Your task to perform on an android device: move an email to a new category in the gmail app Image 0: 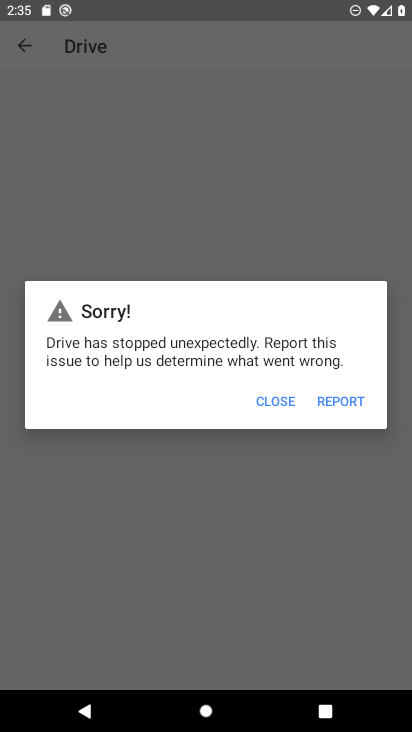
Step 0: press home button
Your task to perform on an android device: move an email to a new category in the gmail app Image 1: 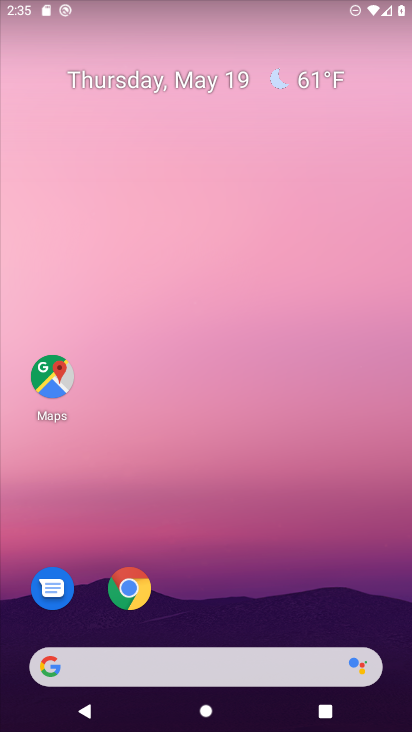
Step 1: drag from (297, 638) to (322, 30)
Your task to perform on an android device: move an email to a new category in the gmail app Image 2: 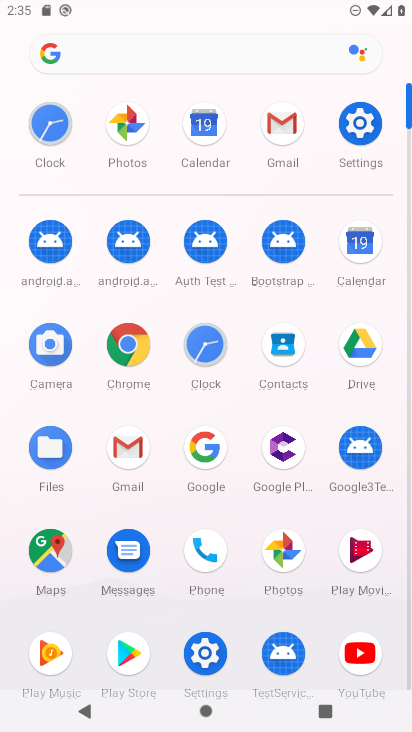
Step 2: click (288, 128)
Your task to perform on an android device: move an email to a new category in the gmail app Image 3: 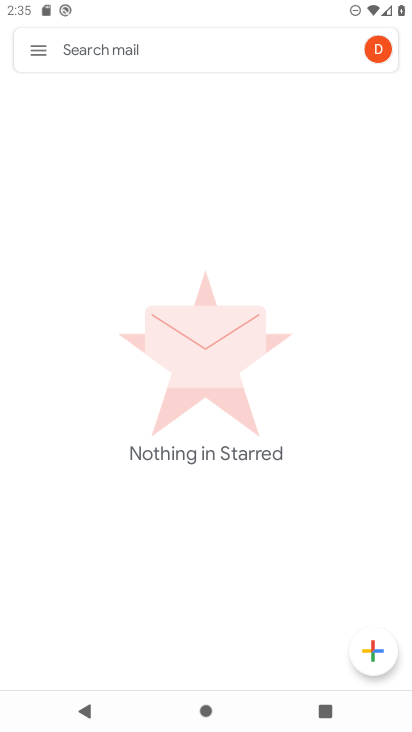
Step 3: click (33, 50)
Your task to perform on an android device: move an email to a new category in the gmail app Image 4: 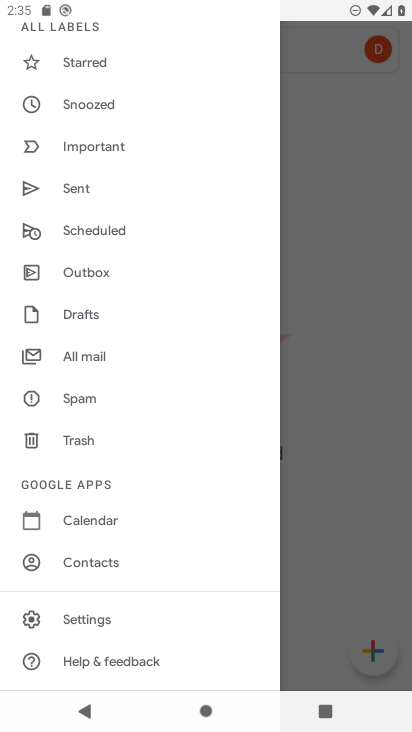
Step 4: click (82, 355)
Your task to perform on an android device: move an email to a new category in the gmail app Image 5: 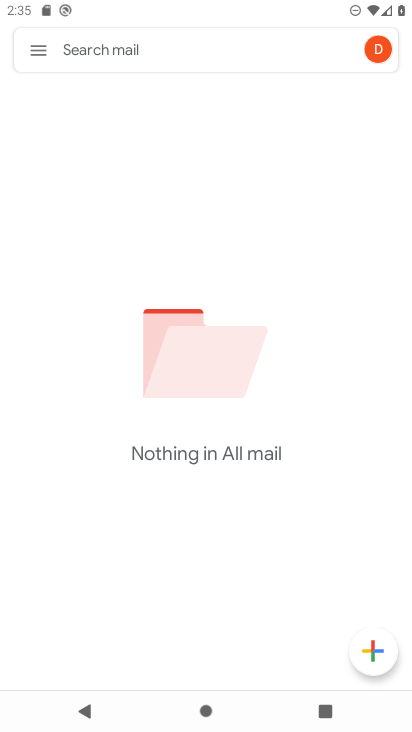
Step 5: task complete